Your task to perform on an android device: open a new tab in the chrome app Image 0: 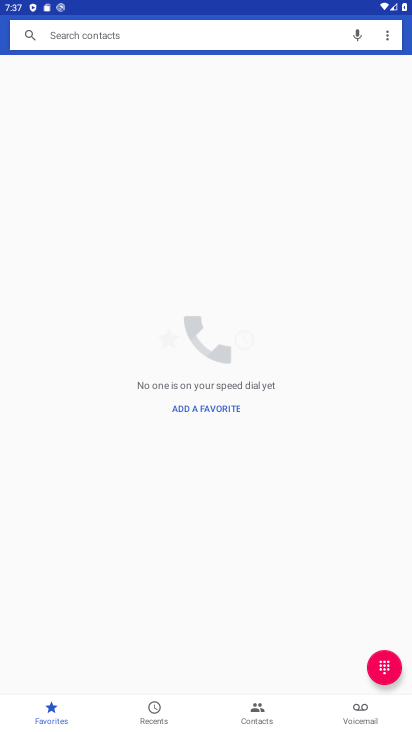
Step 0: press home button
Your task to perform on an android device: open a new tab in the chrome app Image 1: 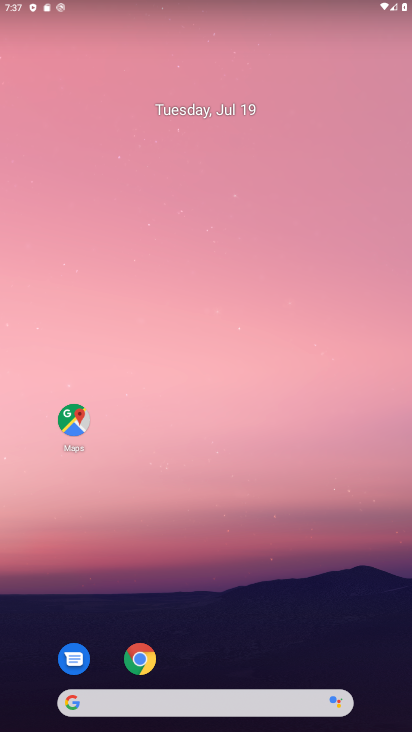
Step 1: click (138, 655)
Your task to perform on an android device: open a new tab in the chrome app Image 2: 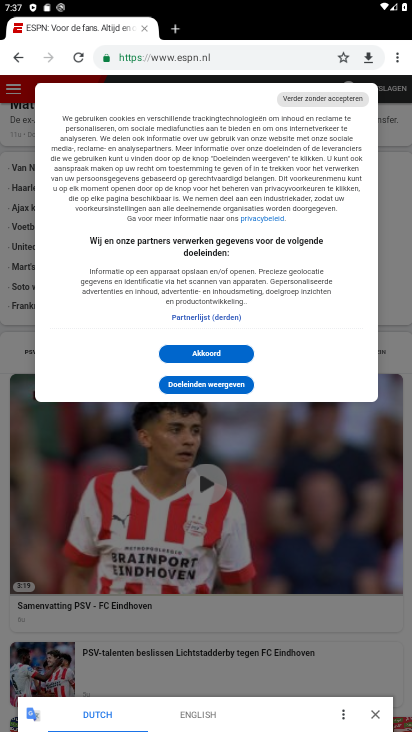
Step 2: click (399, 58)
Your task to perform on an android device: open a new tab in the chrome app Image 3: 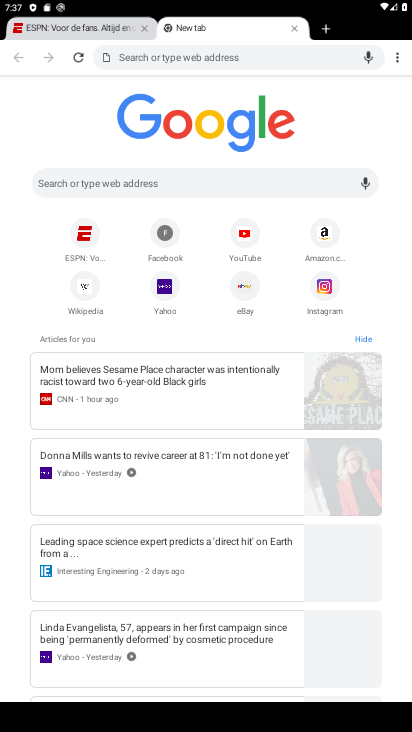
Step 3: click (399, 59)
Your task to perform on an android device: open a new tab in the chrome app Image 4: 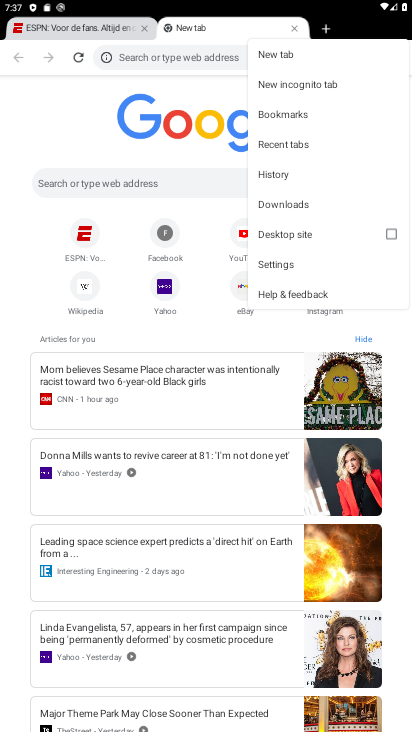
Step 4: click (294, 59)
Your task to perform on an android device: open a new tab in the chrome app Image 5: 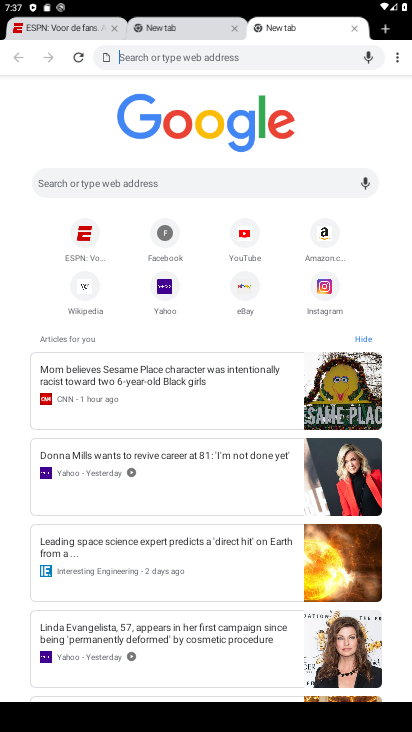
Step 5: task complete